Your task to perform on an android device: Go to sound settings Image 0: 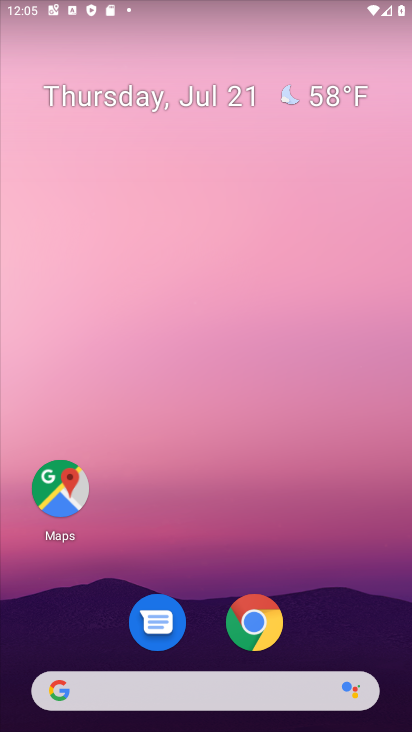
Step 0: drag from (22, 683) to (307, 79)
Your task to perform on an android device: Go to sound settings Image 1: 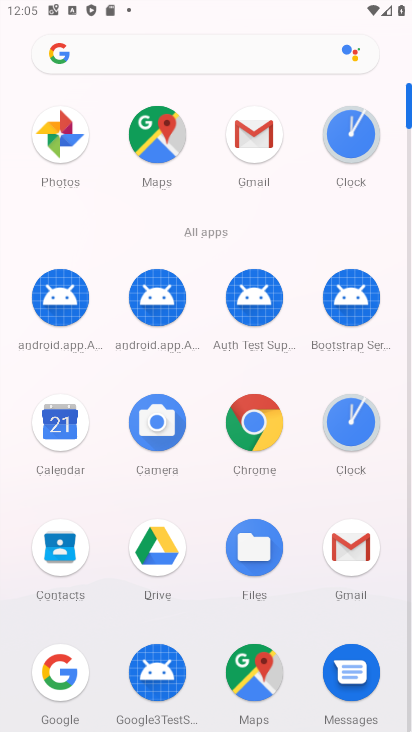
Step 1: drag from (213, 593) to (321, 268)
Your task to perform on an android device: Go to sound settings Image 2: 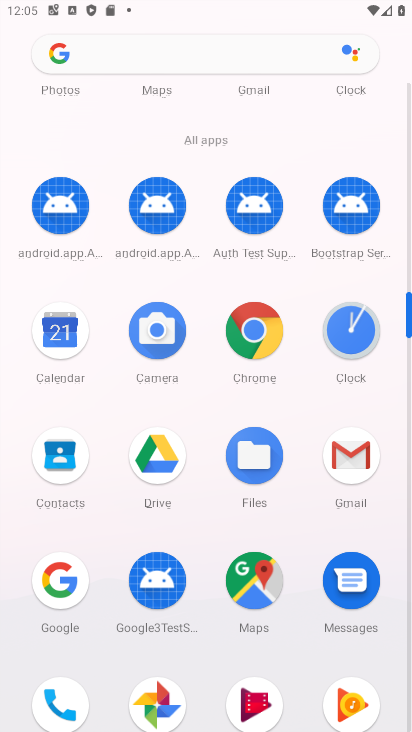
Step 2: drag from (185, 634) to (346, 51)
Your task to perform on an android device: Go to sound settings Image 3: 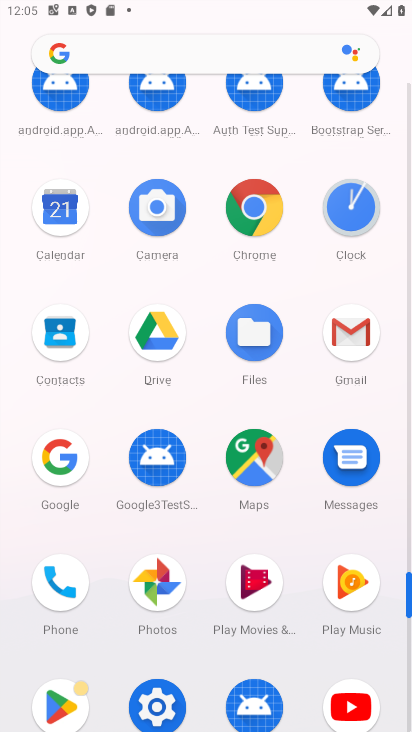
Step 3: click (161, 705)
Your task to perform on an android device: Go to sound settings Image 4: 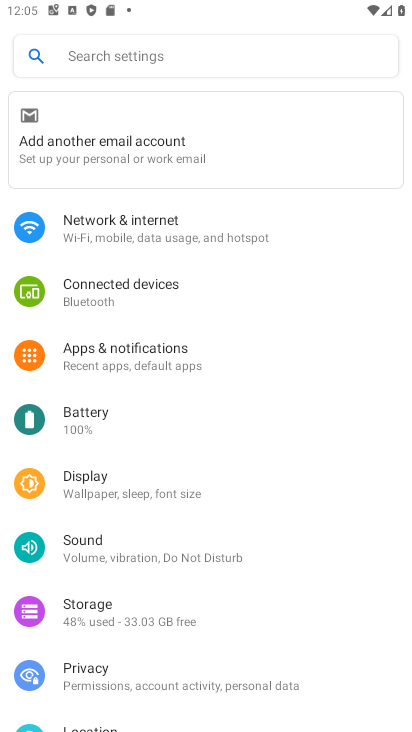
Step 4: click (103, 531)
Your task to perform on an android device: Go to sound settings Image 5: 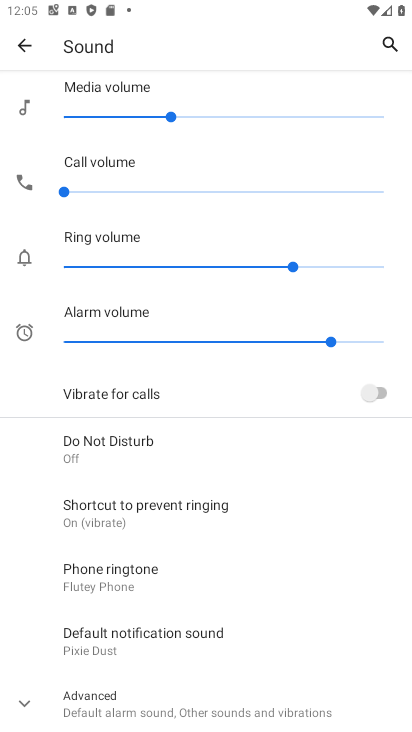
Step 5: task complete